Your task to perform on an android device: allow cookies in the chrome app Image 0: 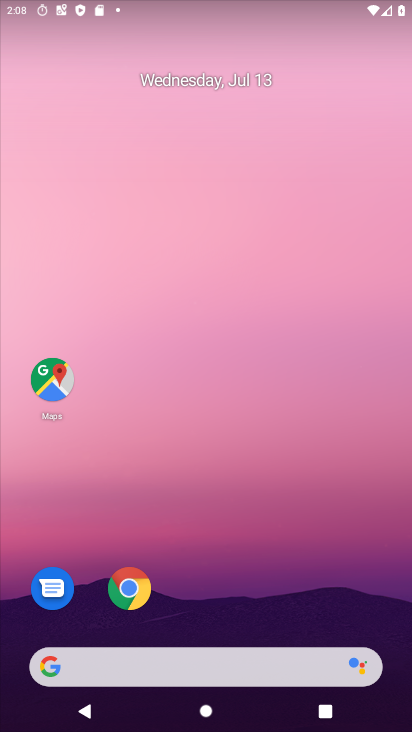
Step 0: click (119, 593)
Your task to perform on an android device: allow cookies in the chrome app Image 1: 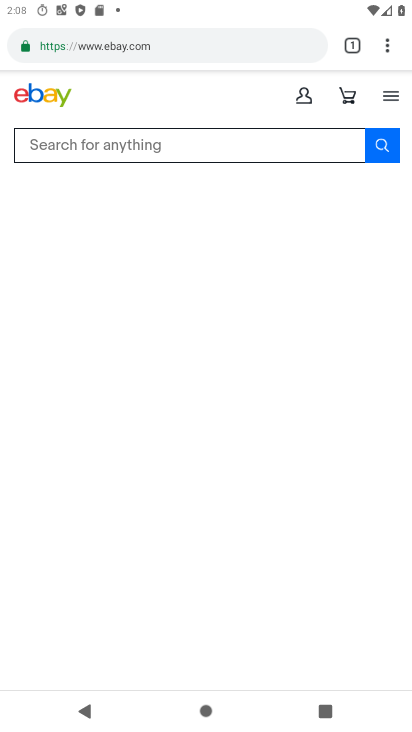
Step 1: click (388, 48)
Your task to perform on an android device: allow cookies in the chrome app Image 2: 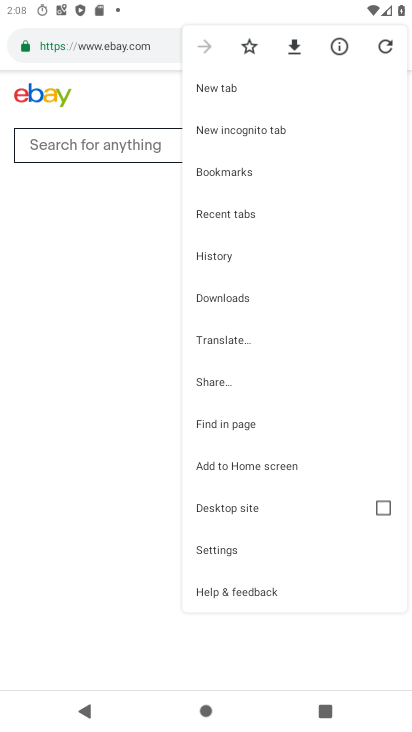
Step 2: click (245, 545)
Your task to perform on an android device: allow cookies in the chrome app Image 3: 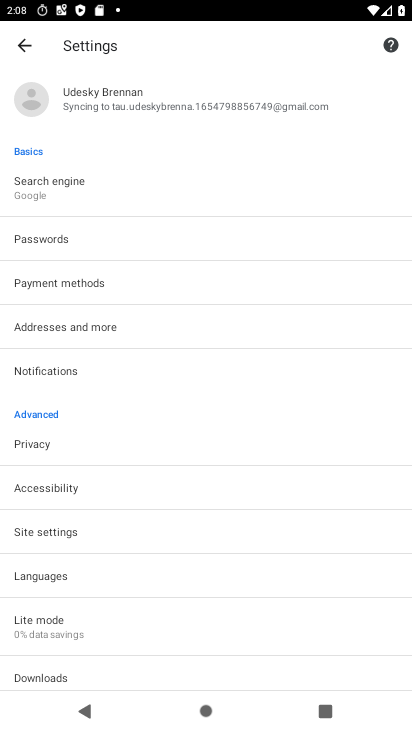
Step 3: click (50, 535)
Your task to perform on an android device: allow cookies in the chrome app Image 4: 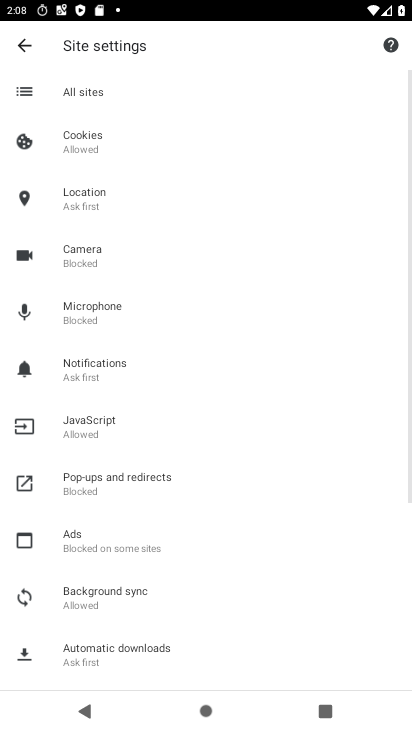
Step 4: click (115, 144)
Your task to perform on an android device: allow cookies in the chrome app Image 5: 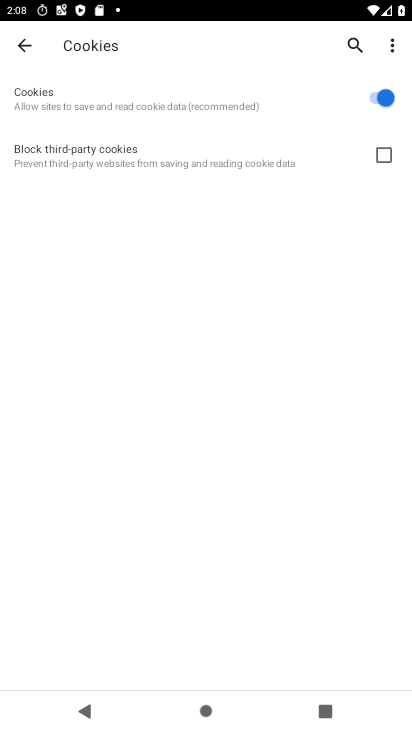
Step 5: task complete